Your task to perform on an android device: Show me popular videos on Youtube Image 0: 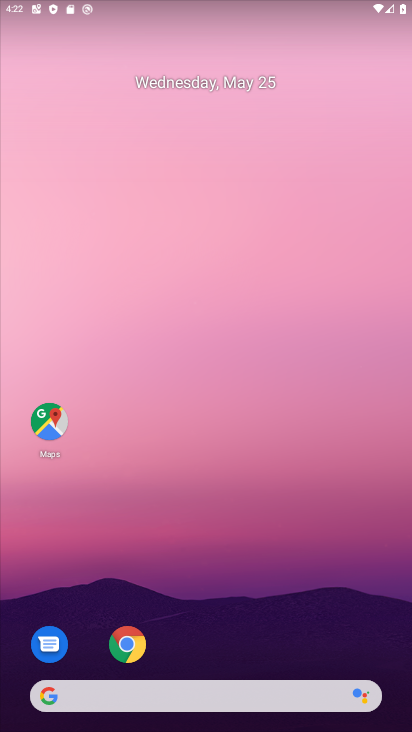
Step 0: drag from (275, 639) to (281, 1)
Your task to perform on an android device: Show me popular videos on Youtube Image 1: 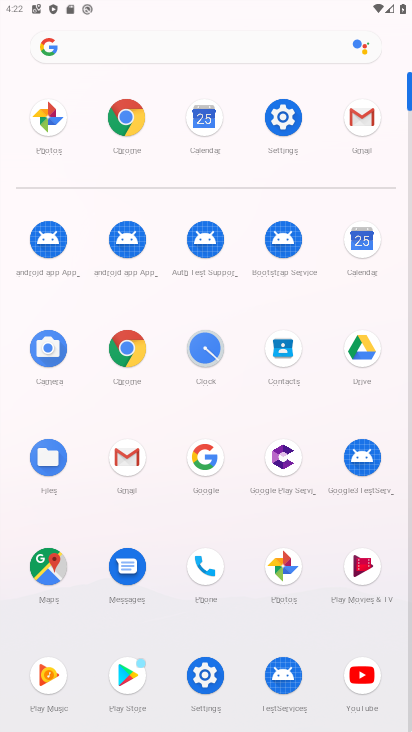
Step 1: click (358, 666)
Your task to perform on an android device: Show me popular videos on Youtube Image 2: 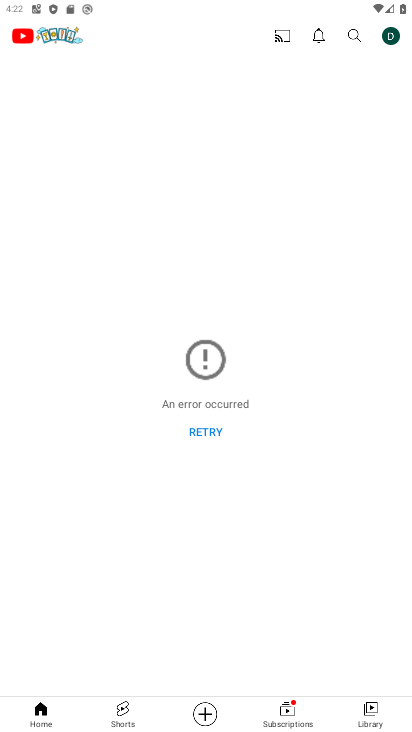
Step 2: click (37, 715)
Your task to perform on an android device: Show me popular videos on Youtube Image 3: 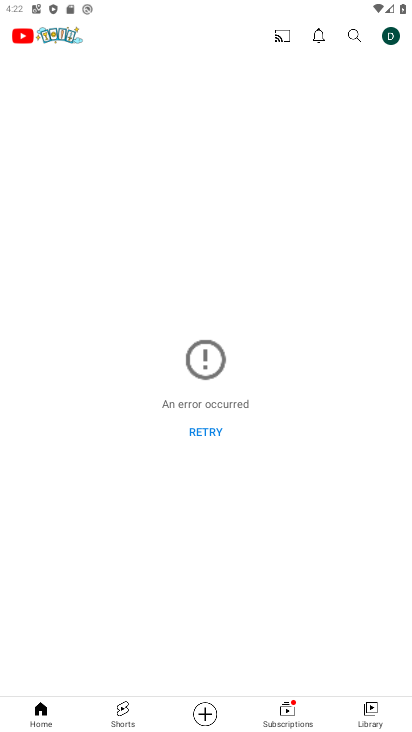
Step 3: click (189, 438)
Your task to perform on an android device: Show me popular videos on Youtube Image 4: 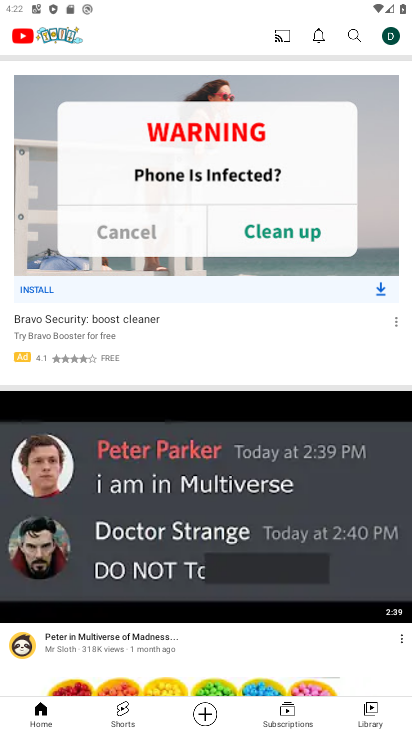
Step 4: task complete